Your task to perform on an android device: turn off picture-in-picture Image 0: 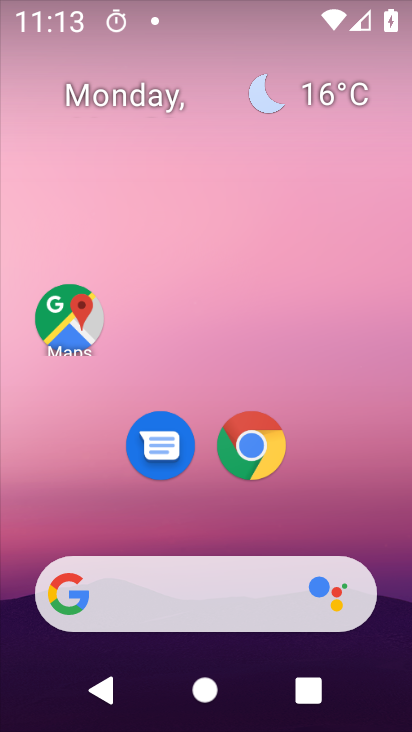
Step 0: click (243, 452)
Your task to perform on an android device: turn off picture-in-picture Image 1: 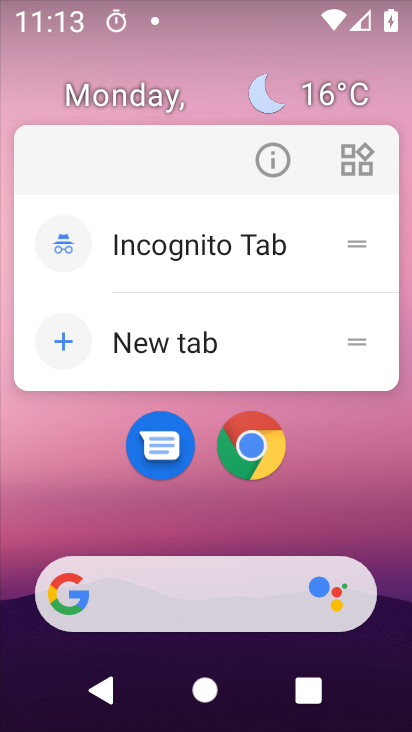
Step 1: click (274, 161)
Your task to perform on an android device: turn off picture-in-picture Image 2: 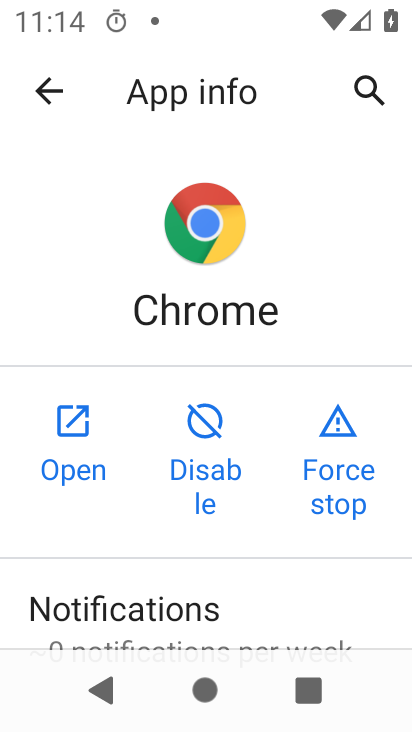
Step 2: drag from (245, 583) to (296, 107)
Your task to perform on an android device: turn off picture-in-picture Image 3: 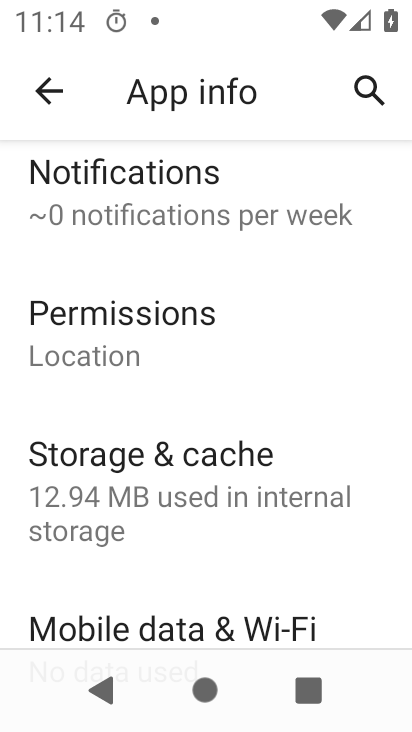
Step 3: drag from (245, 490) to (308, 104)
Your task to perform on an android device: turn off picture-in-picture Image 4: 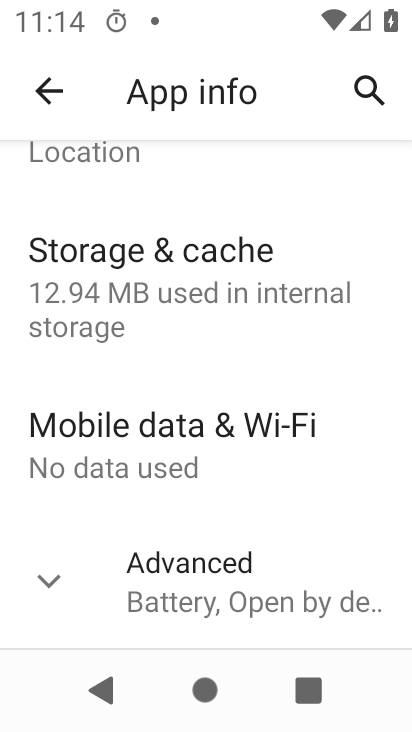
Step 4: drag from (215, 595) to (210, 377)
Your task to perform on an android device: turn off picture-in-picture Image 5: 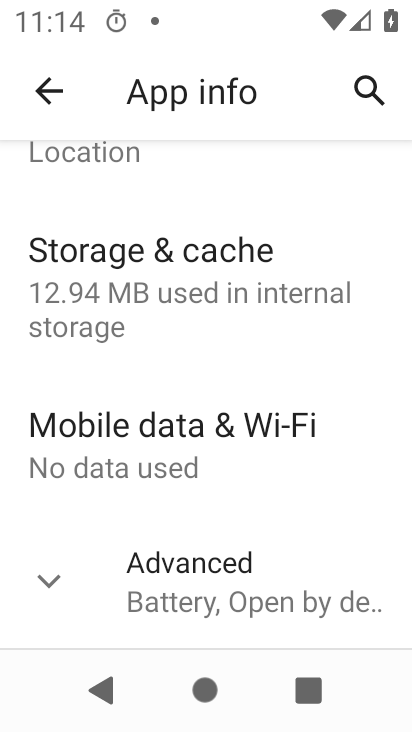
Step 5: click (47, 577)
Your task to perform on an android device: turn off picture-in-picture Image 6: 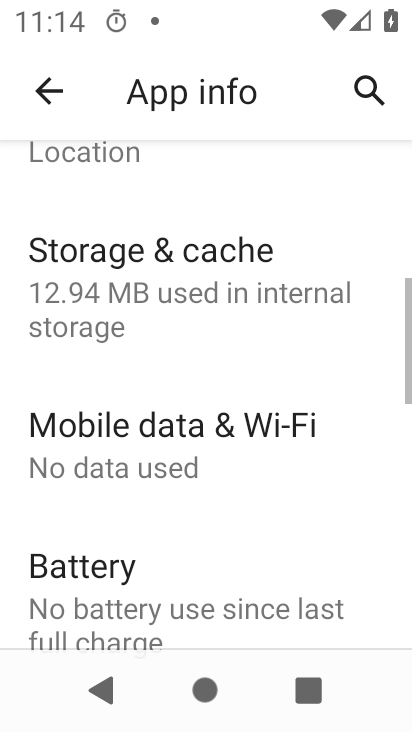
Step 6: drag from (177, 581) to (213, 87)
Your task to perform on an android device: turn off picture-in-picture Image 7: 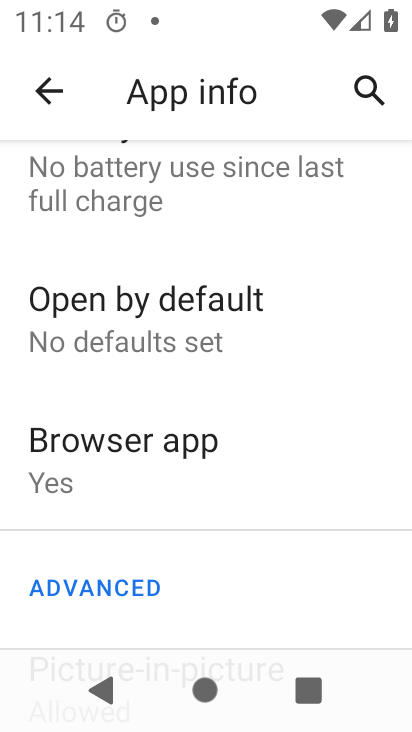
Step 7: drag from (131, 435) to (159, 33)
Your task to perform on an android device: turn off picture-in-picture Image 8: 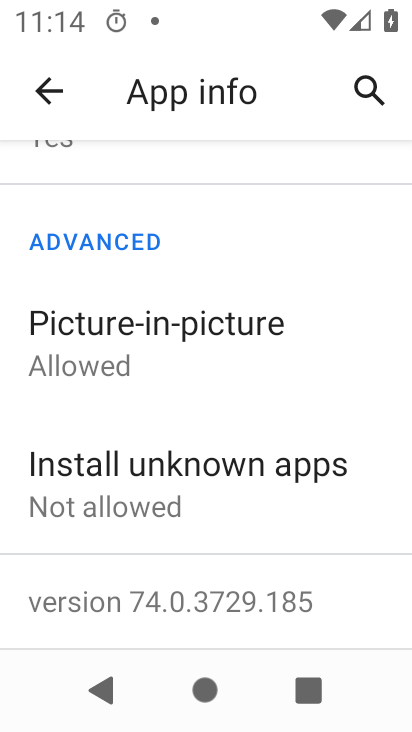
Step 8: click (111, 358)
Your task to perform on an android device: turn off picture-in-picture Image 9: 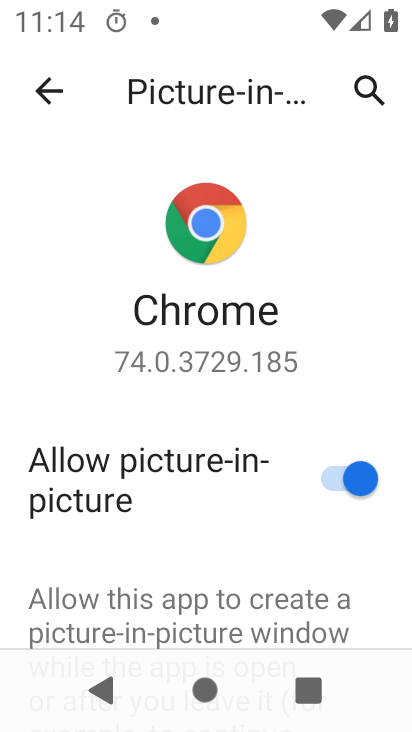
Step 9: click (316, 474)
Your task to perform on an android device: turn off picture-in-picture Image 10: 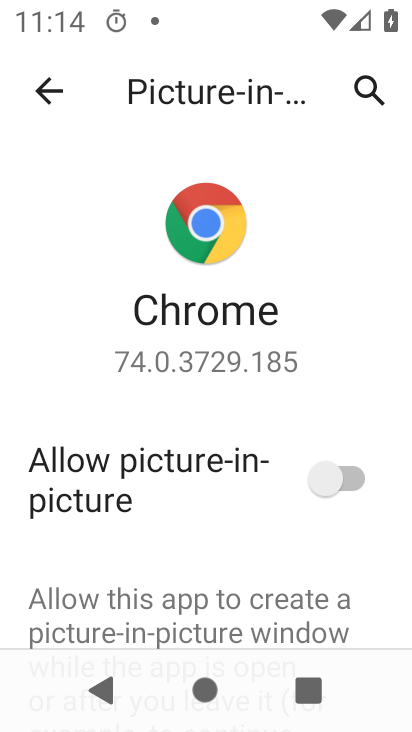
Step 10: task complete